Your task to perform on an android device: What's the latest news in astronomy? Image 0: 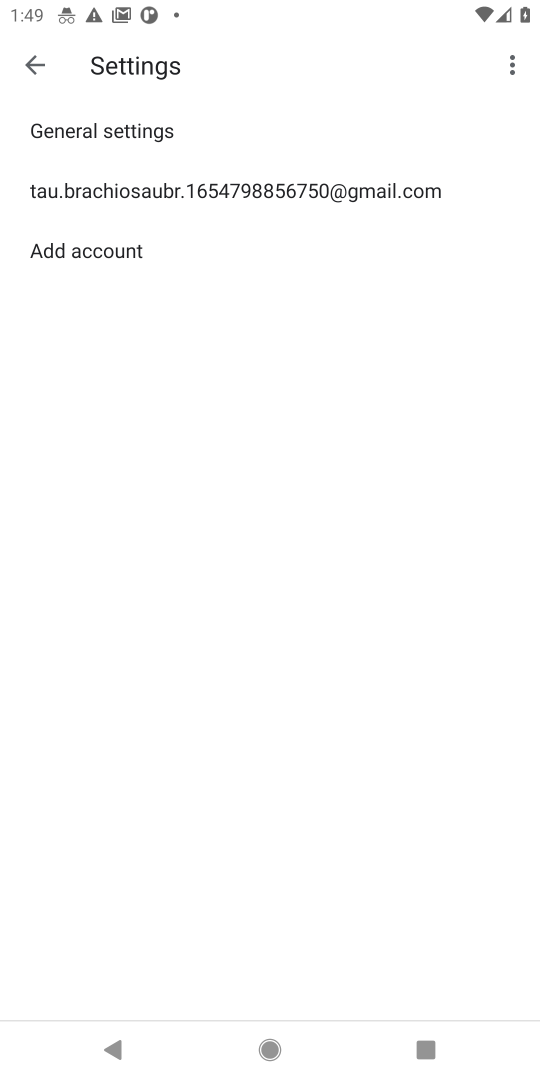
Step 0: press home button
Your task to perform on an android device: What's the latest news in astronomy? Image 1: 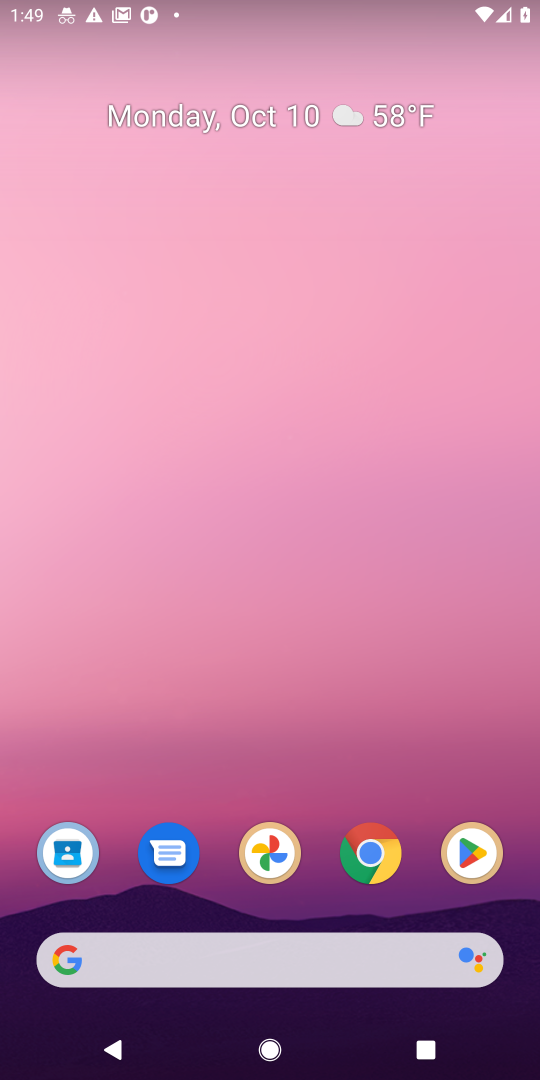
Step 1: click (374, 856)
Your task to perform on an android device: What's the latest news in astronomy? Image 2: 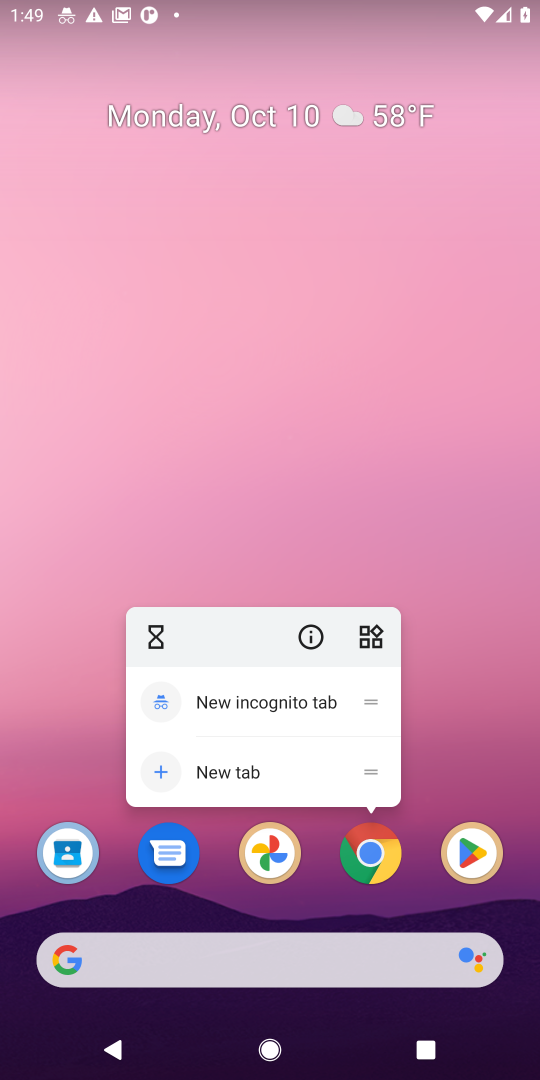
Step 2: click (374, 856)
Your task to perform on an android device: What's the latest news in astronomy? Image 3: 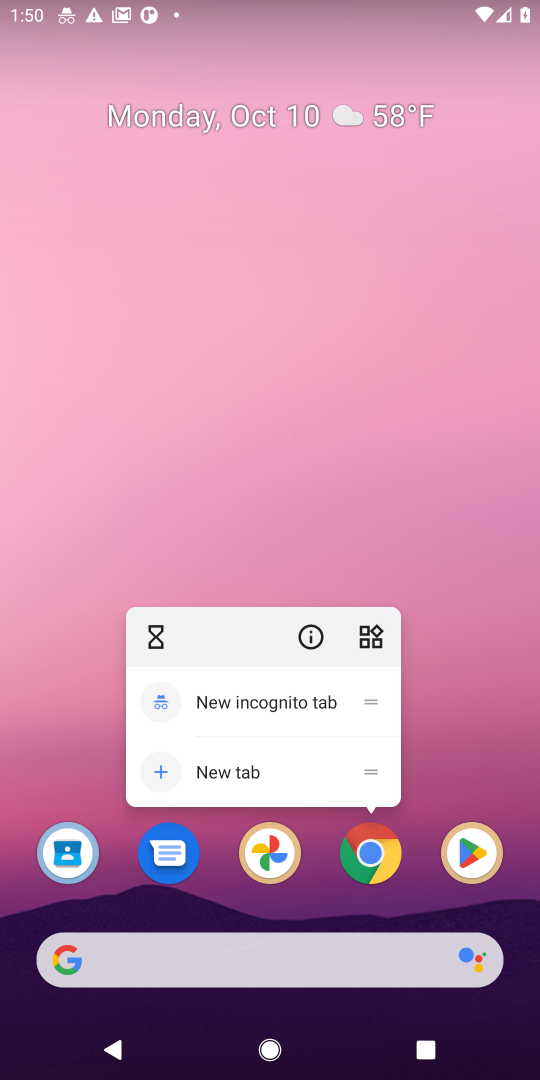
Step 3: click (377, 851)
Your task to perform on an android device: What's the latest news in astronomy? Image 4: 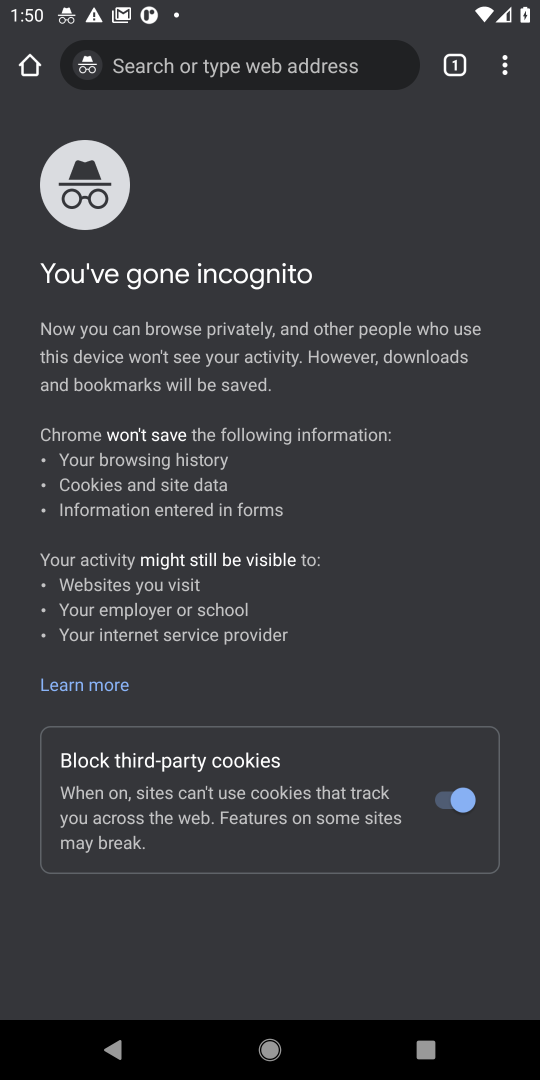
Step 4: click (249, 67)
Your task to perform on an android device: What's the latest news in astronomy? Image 5: 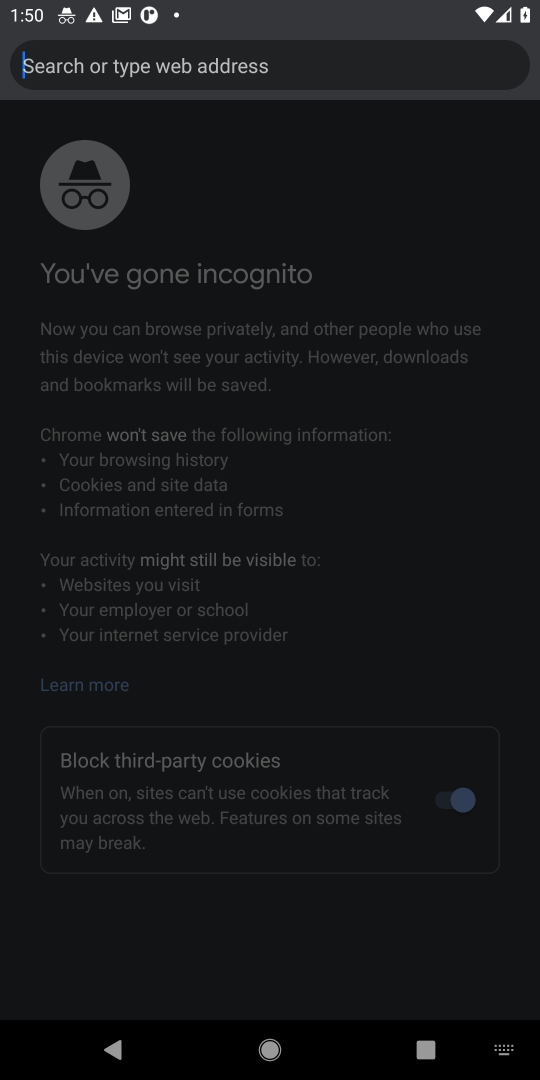
Step 5: click (249, 67)
Your task to perform on an android device: What's the latest news in astronomy? Image 6: 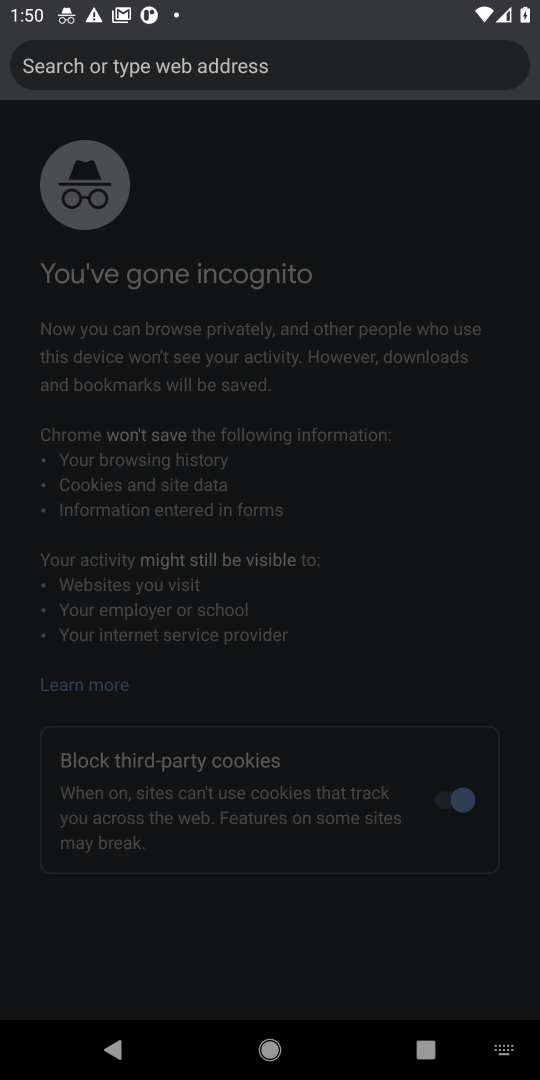
Step 6: type "astronomy"
Your task to perform on an android device: What's the latest news in astronomy? Image 7: 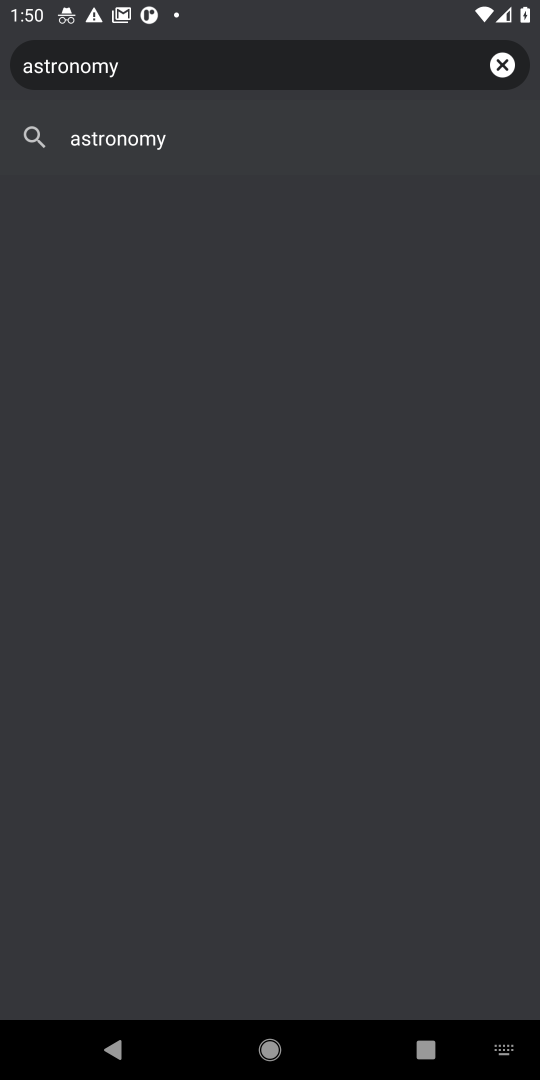
Step 7: type ""
Your task to perform on an android device: What's the latest news in astronomy? Image 8: 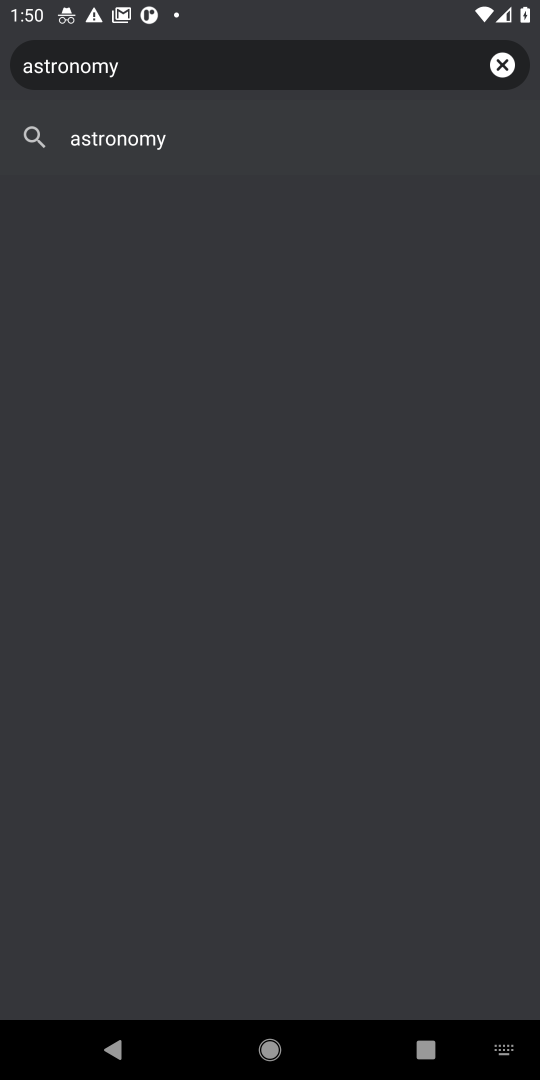
Step 8: click (104, 142)
Your task to perform on an android device: What's the latest news in astronomy? Image 9: 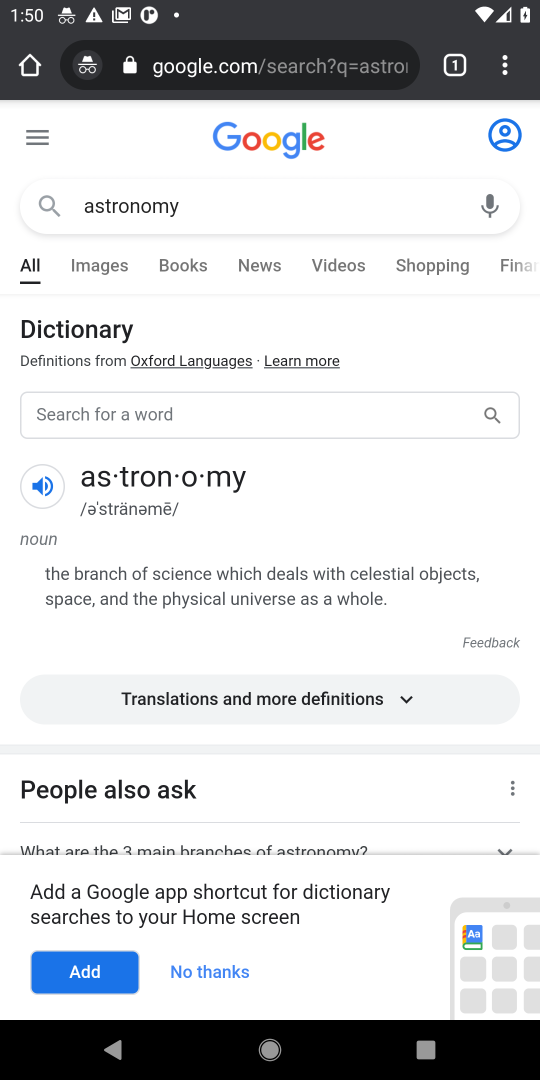
Step 9: click (247, 264)
Your task to perform on an android device: What's the latest news in astronomy? Image 10: 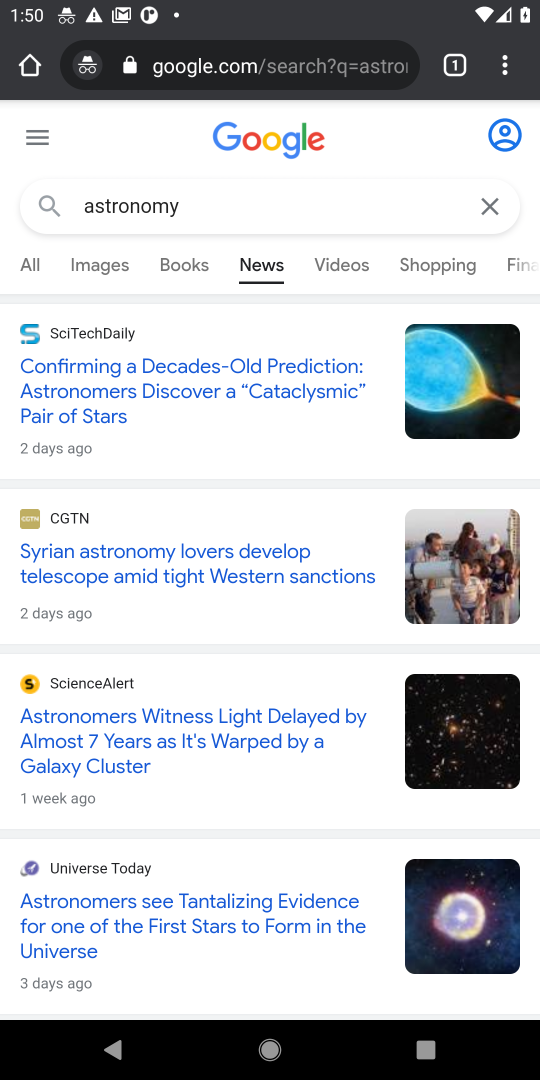
Step 10: task complete